Your task to perform on an android device: Go to Android settings Image 0: 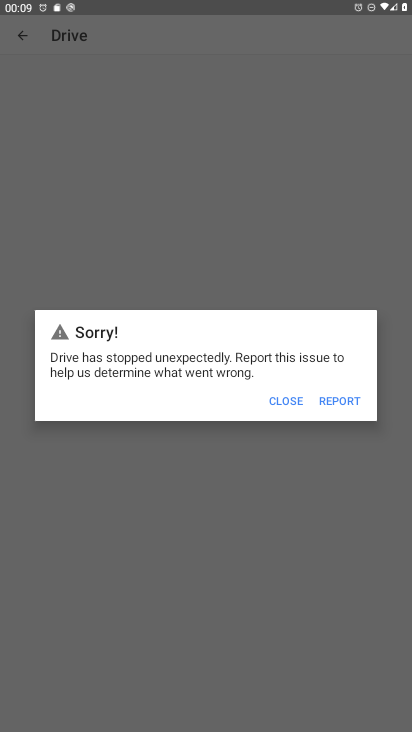
Step 0: press home button
Your task to perform on an android device: Go to Android settings Image 1: 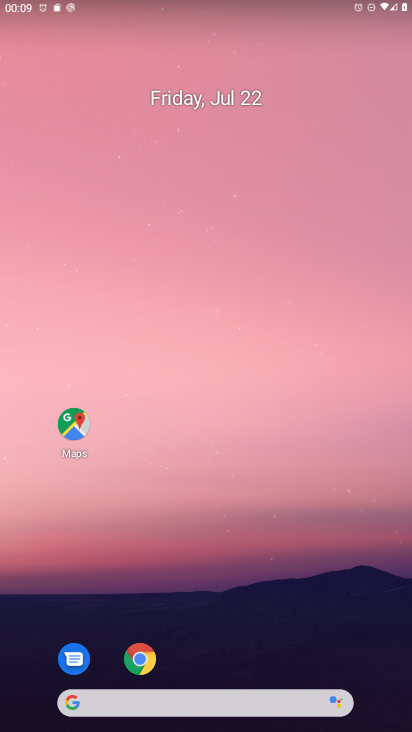
Step 1: drag from (205, 701) to (201, 191)
Your task to perform on an android device: Go to Android settings Image 2: 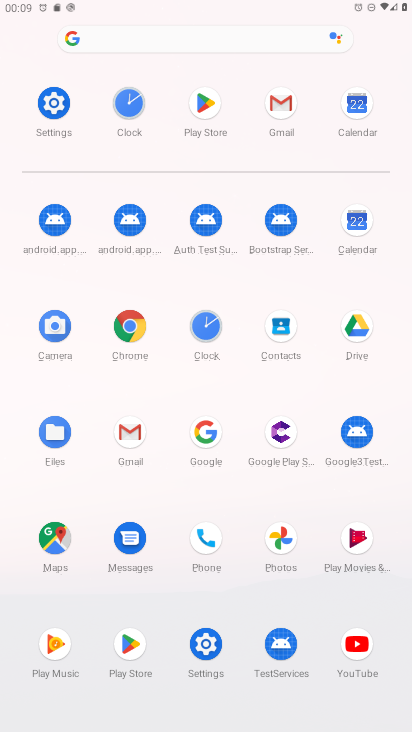
Step 2: click (55, 104)
Your task to perform on an android device: Go to Android settings Image 3: 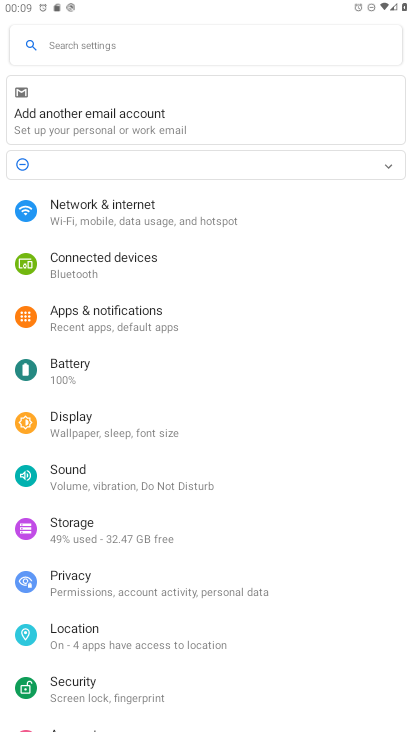
Step 3: task complete